Your task to perform on an android device: Open display settings Image 0: 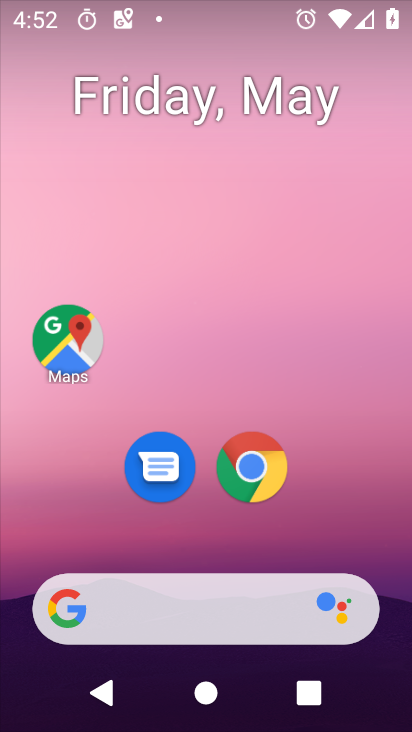
Step 0: drag from (348, 531) to (364, 0)
Your task to perform on an android device: Open display settings Image 1: 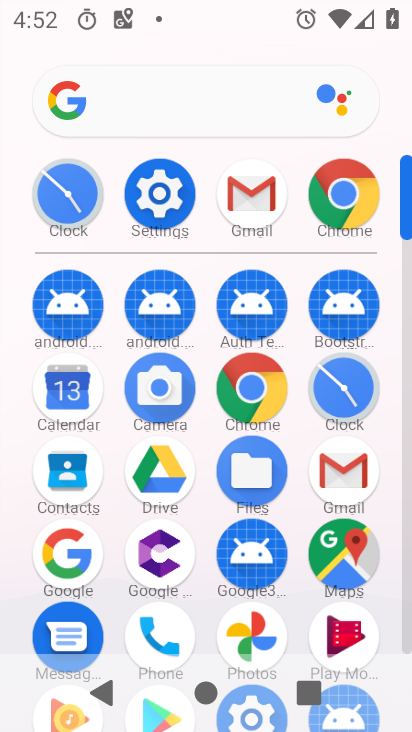
Step 1: click (157, 181)
Your task to perform on an android device: Open display settings Image 2: 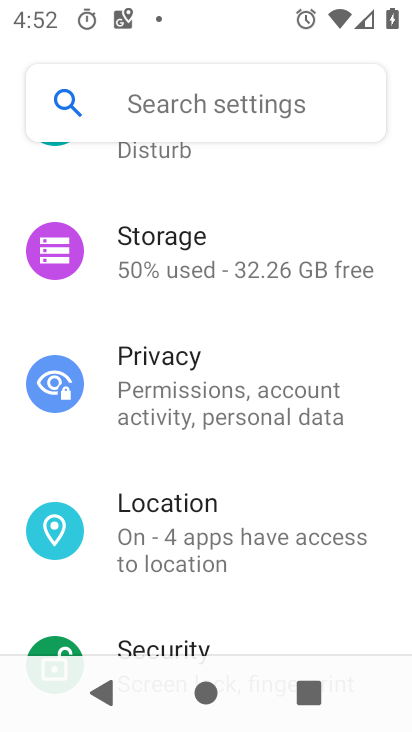
Step 2: drag from (260, 225) to (245, 553)
Your task to perform on an android device: Open display settings Image 3: 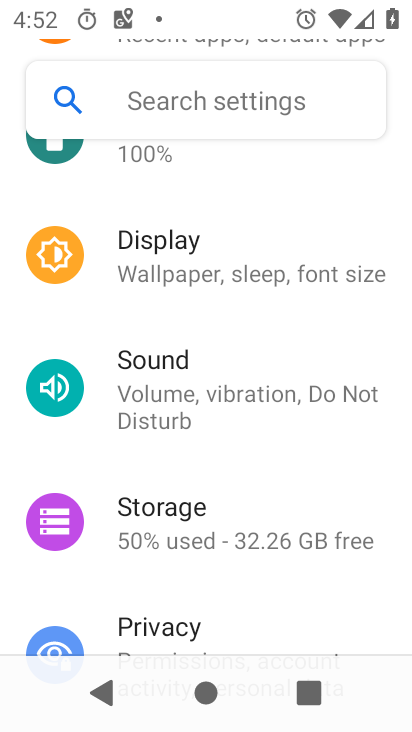
Step 3: click (240, 233)
Your task to perform on an android device: Open display settings Image 4: 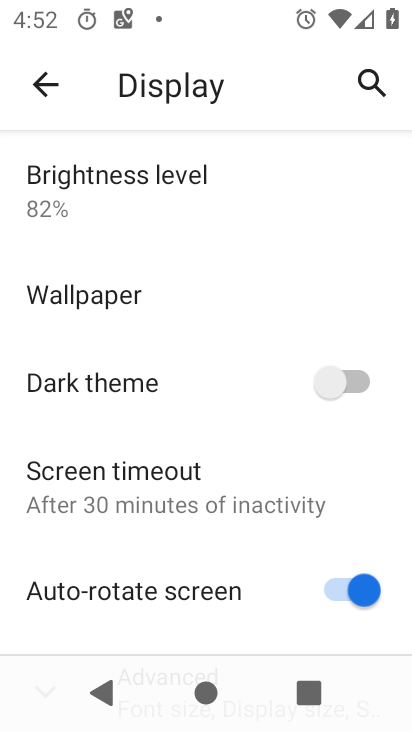
Step 4: task complete